Your task to perform on an android device: Open Google Chrome Image 0: 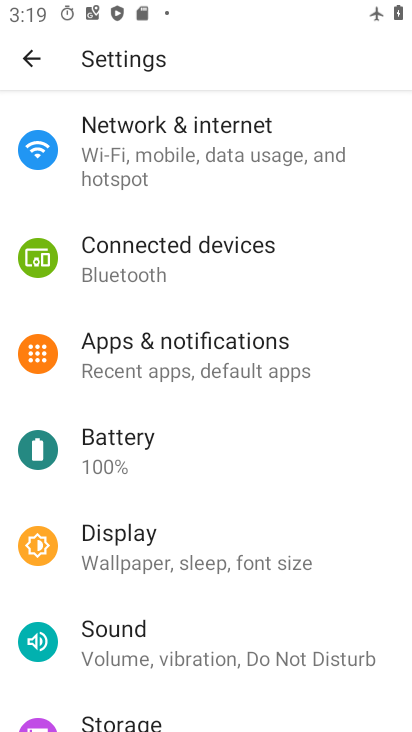
Step 0: press back button
Your task to perform on an android device: Open Google Chrome Image 1: 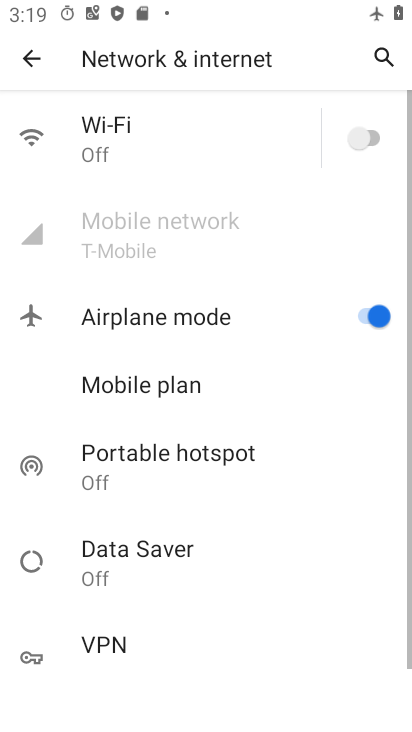
Step 1: press back button
Your task to perform on an android device: Open Google Chrome Image 2: 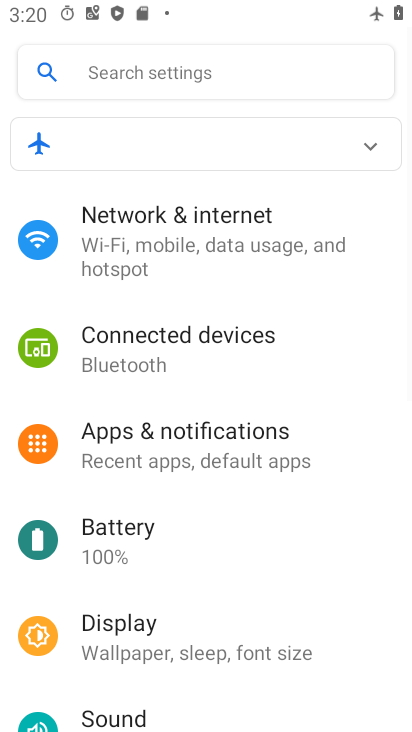
Step 2: press home button
Your task to perform on an android device: Open Google Chrome Image 3: 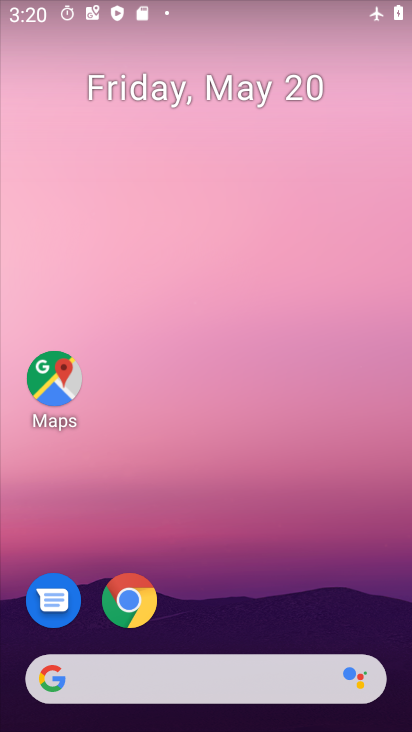
Step 3: drag from (290, 539) to (258, 27)
Your task to perform on an android device: Open Google Chrome Image 4: 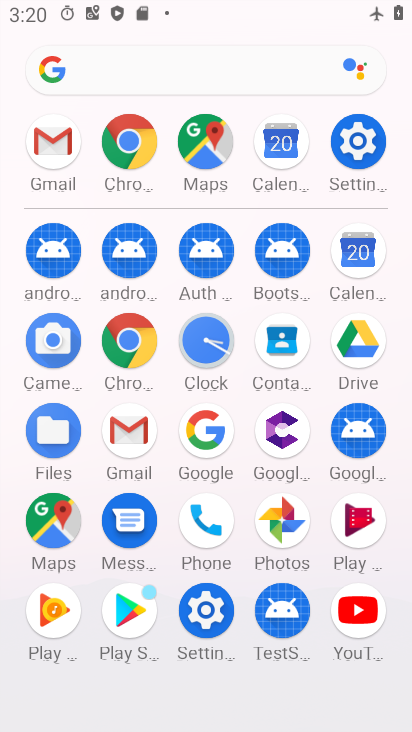
Step 4: click (130, 339)
Your task to perform on an android device: Open Google Chrome Image 5: 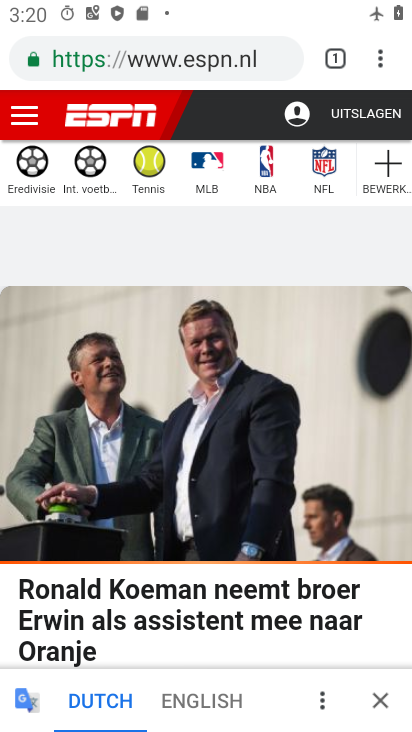
Step 5: task complete